Your task to perform on an android device: open sync settings in chrome Image 0: 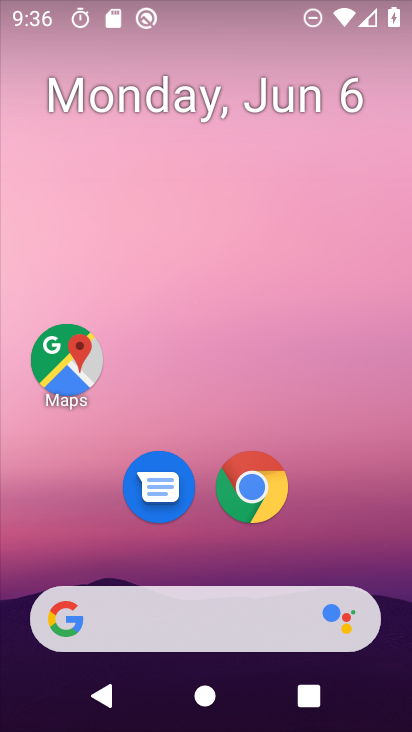
Step 0: drag from (398, 611) to (317, 93)
Your task to perform on an android device: open sync settings in chrome Image 1: 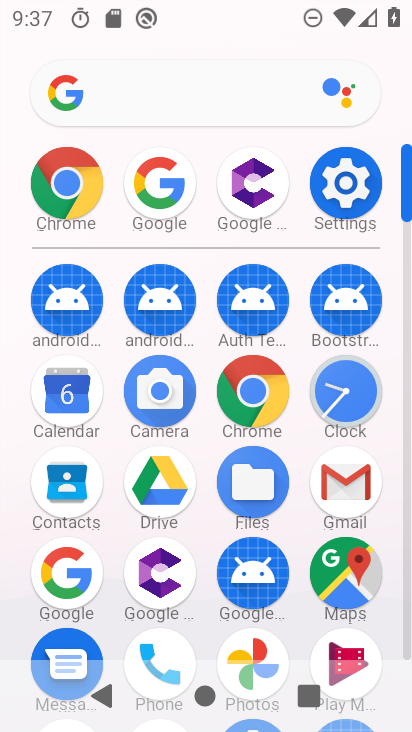
Step 1: click (62, 181)
Your task to perform on an android device: open sync settings in chrome Image 2: 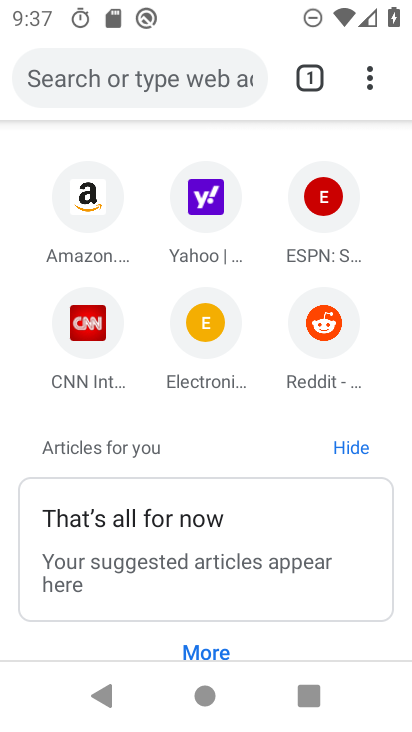
Step 2: click (368, 81)
Your task to perform on an android device: open sync settings in chrome Image 3: 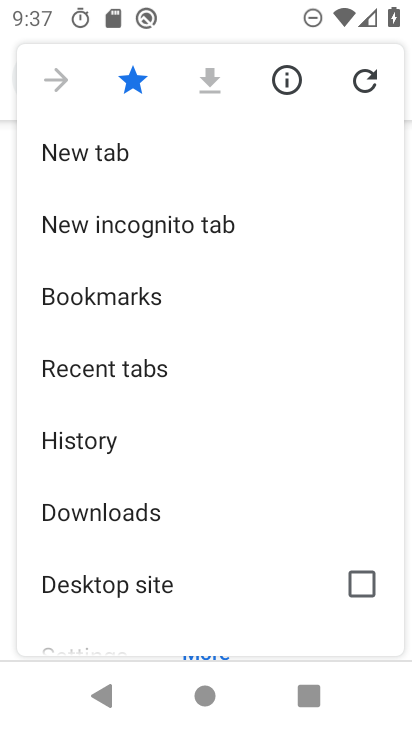
Step 3: drag from (185, 551) to (238, 182)
Your task to perform on an android device: open sync settings in chrome Image 4: 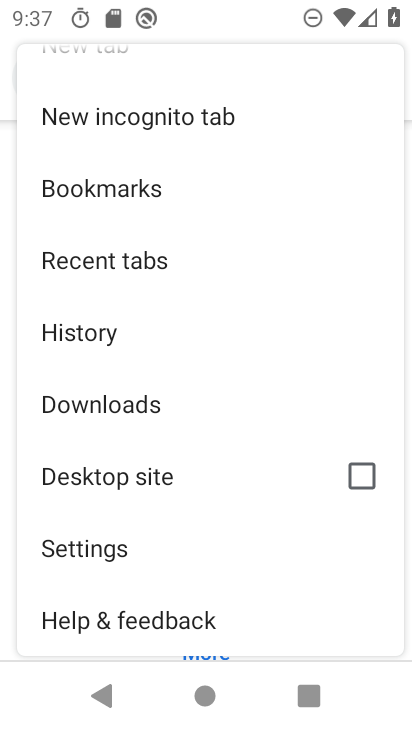
Step 4: click (136, 546)
Your task to perform on an android device: open sync settings in chrome Image 5: 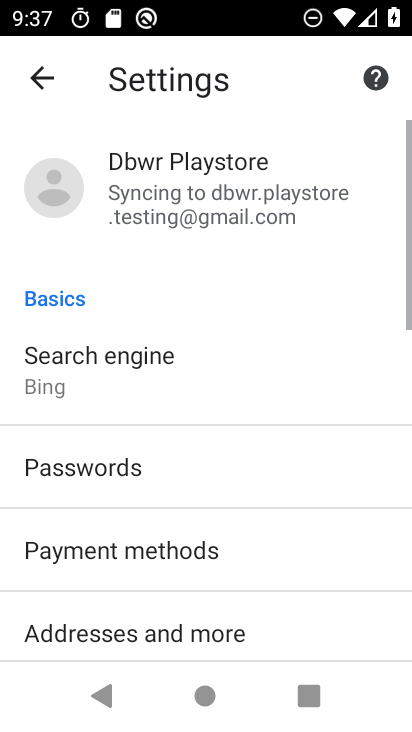
Step 5: drag from (149, 627) to (215, 147)
Your task to perform on an android device: open sync settings in chrome Image 6: 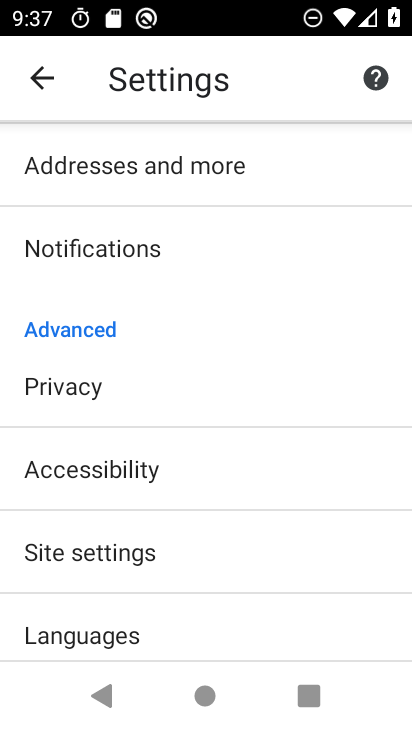
Step 6: click (143, 538)
Your task to perform on an android device: open sync settings in chrome Image 7: 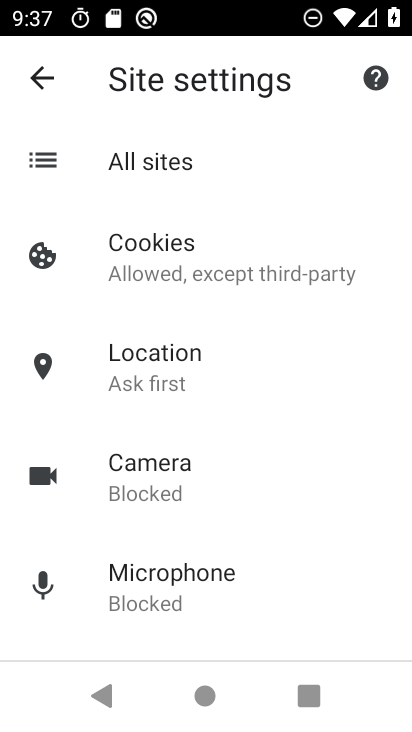
Step 7: drag from (230, 598) to (257, 186)
Your task to perform on an android device: open sync settings in chrome Image 8: 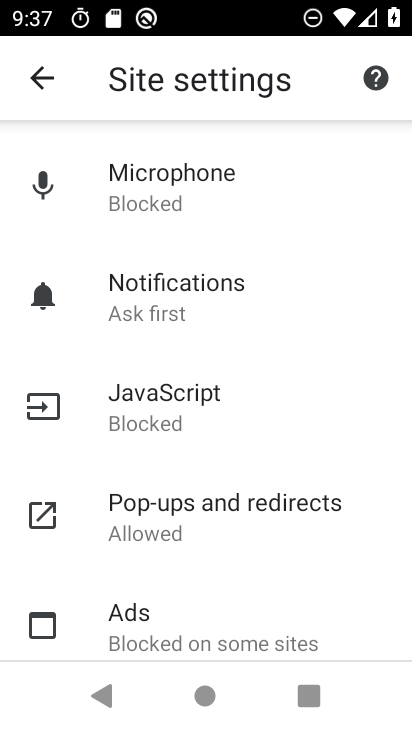
Step 8: drag from (213, 504) to (216, 175)
Your task to perform on an android device: open sync settings in chrome Image 9: 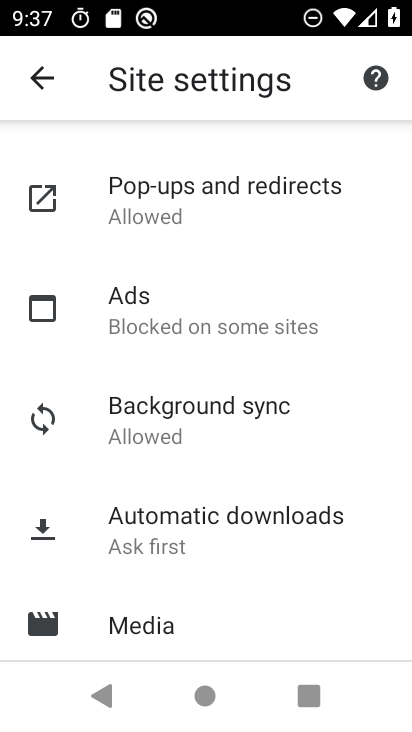
Step 9: click (211, 446)
Your task to perform on an android device: open sync settings in chrome Image 10: 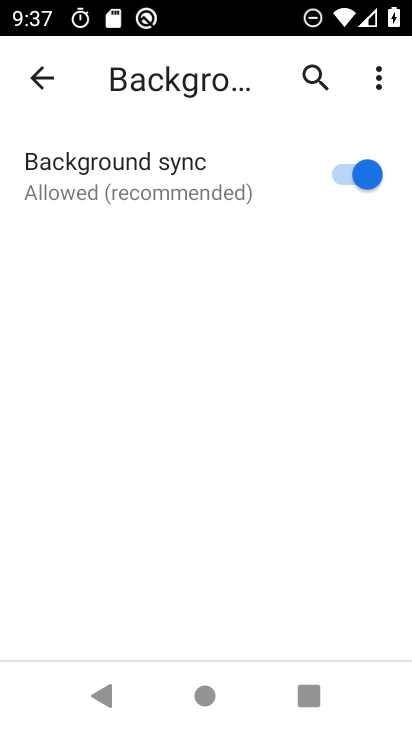
Step 10: task complete